Your task to perform on an android device: open app "Expedia: Hotels, Flights & Car" (install if not already installed) and go to login screen Image 0: 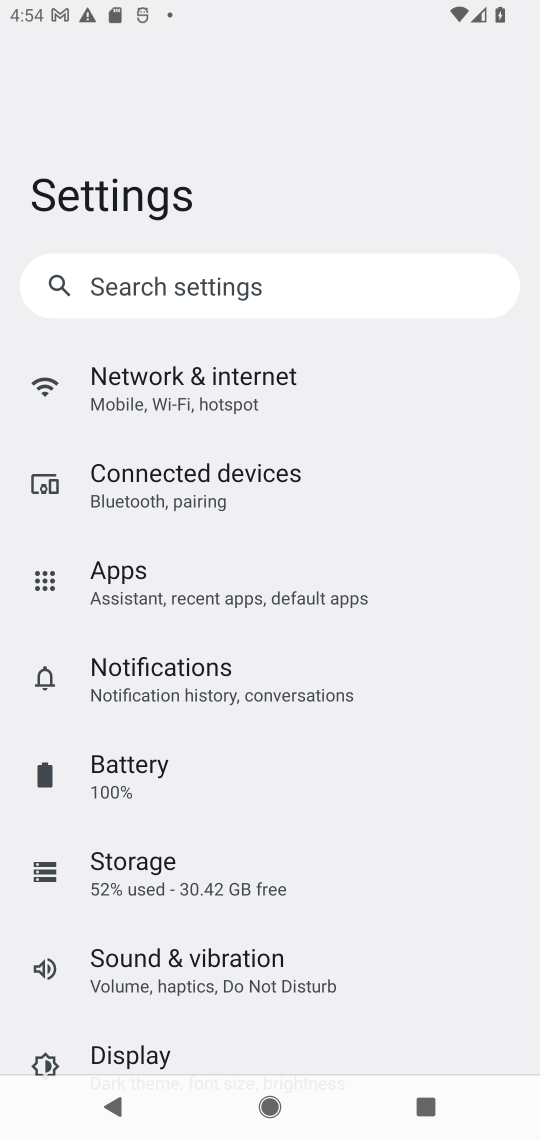
Step 0: press home button
Your task to perform on an android device: open app "Expedia: Hotels, Flights & Car" (install if not already installed) and go to login screen Image 1: 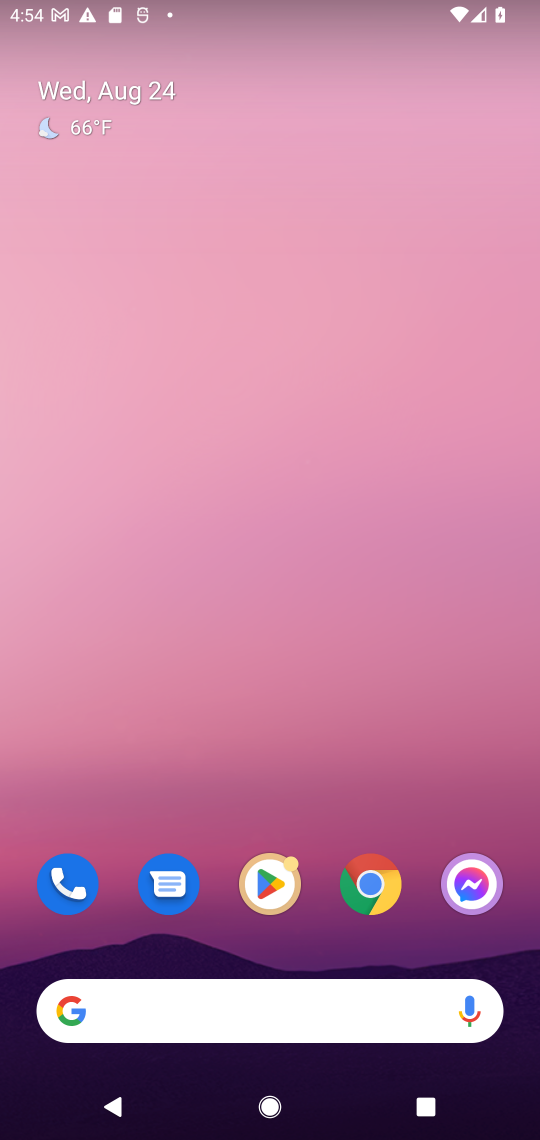
Step 1: click (261, 877)
Your task to perform on an android device: open app "Expedia: Hotels, Flights & Car" (install if not already installed) and go to login screen Image 2: 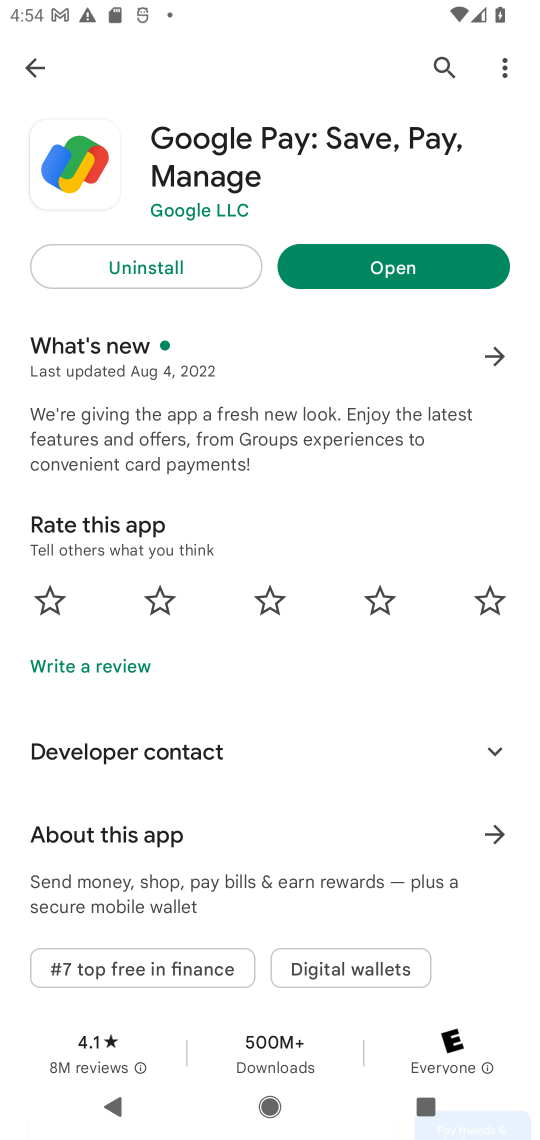
Step 2: click (20, 62)
Your task to perform on an android device: open app "Expedia: Hotels, Flights & Car" (install if not already installed) and go to login screen Image 3: 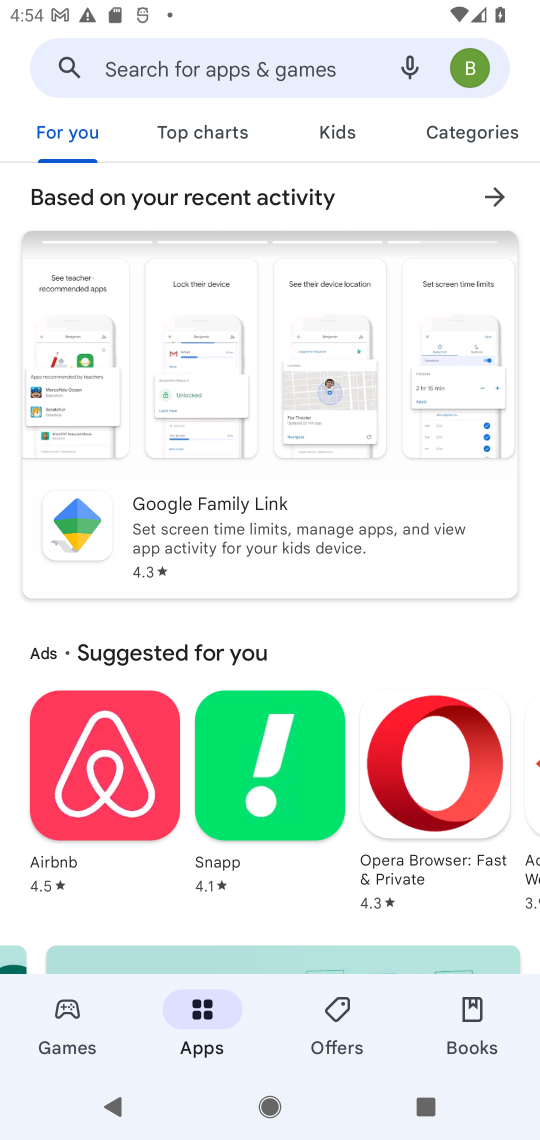
Step 3: click (131, 63)
Your task to perform on an android device: open app "Expedia: Hotels, Flights & Car" (install if not already installed) and go to login screen Image 4: 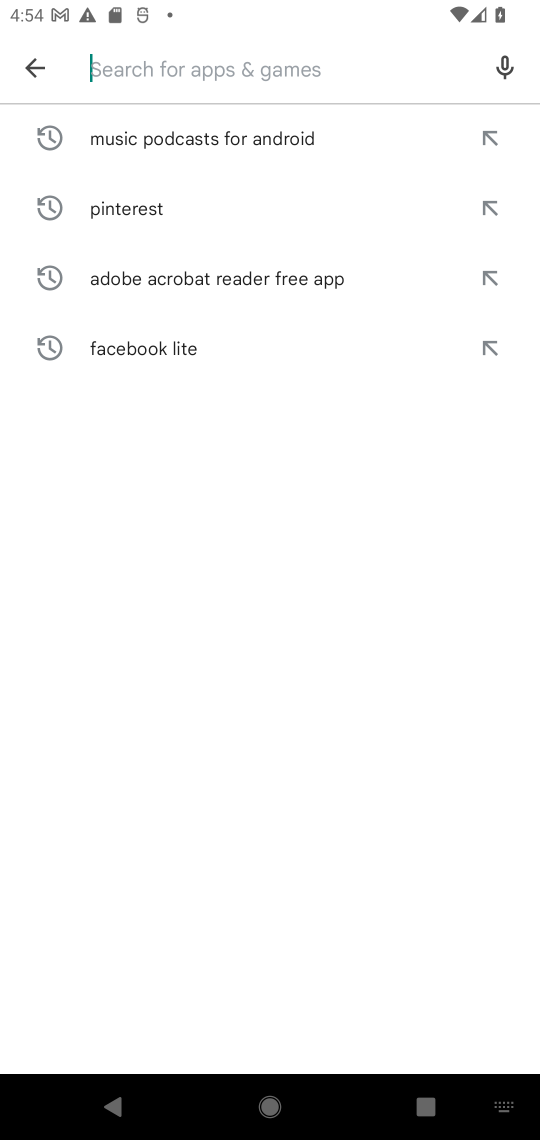
Step 4: type "Expedia: Hotels, Flights & Car"
Your task to perform on an android device: open app "Expedia: Hotels, Flights & Car" (install if not already installed) and go to login screen Image 5: 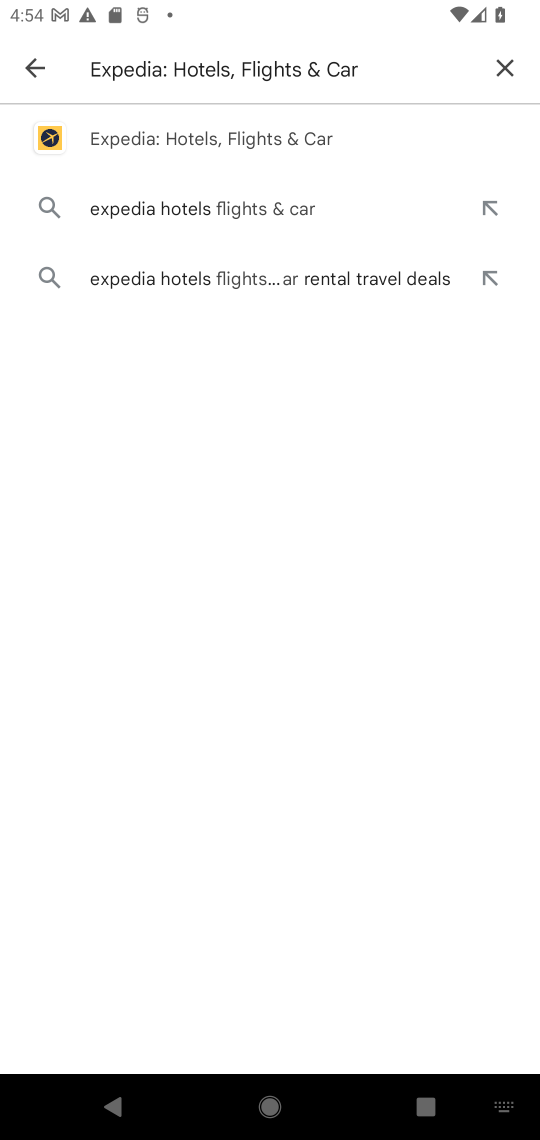
Step 5: click (293, 144)
Your task to perform on an android device: open app "Expedia: Hotels, Flights & Car" (install if not already installed) and go to login screen Image 6: 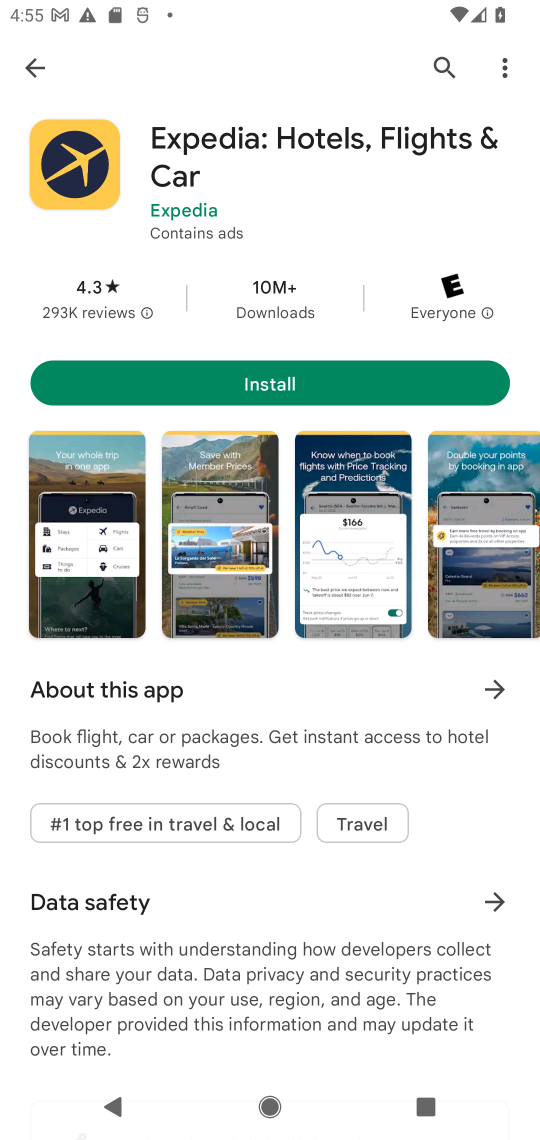
Step 6: click (237, 389)
Your task to perform on an android device: open app "Expedia: Hotels, Flights & Car" (install if not already installed) and go to login screen Image 7: 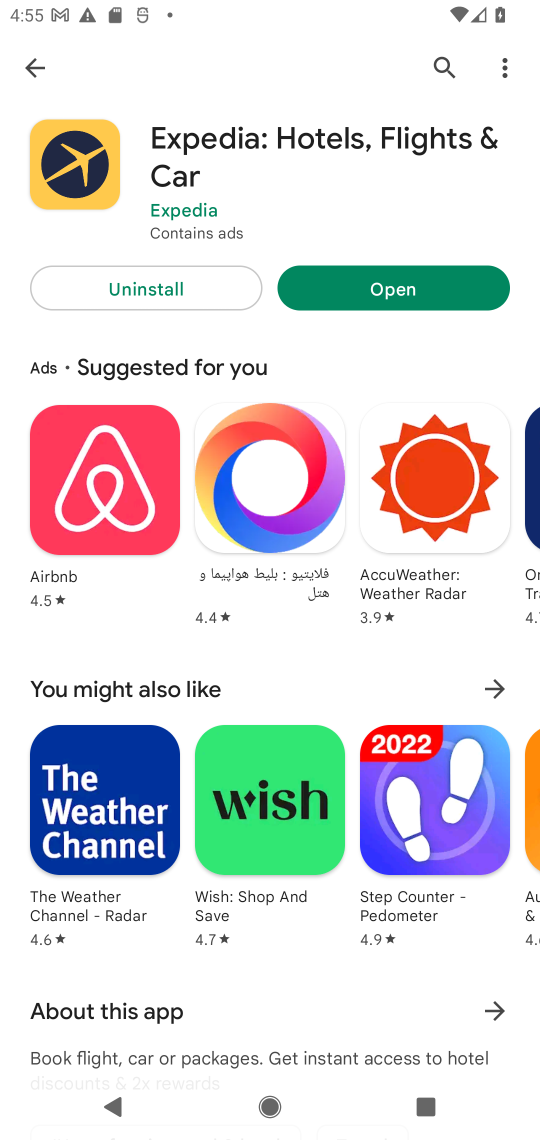
Step 7: click (385, 290)
Your task to perform on an android device: open app "Expedia: Hotels, Flights & Car" (install if not already installed) and go to login screen Image 8: 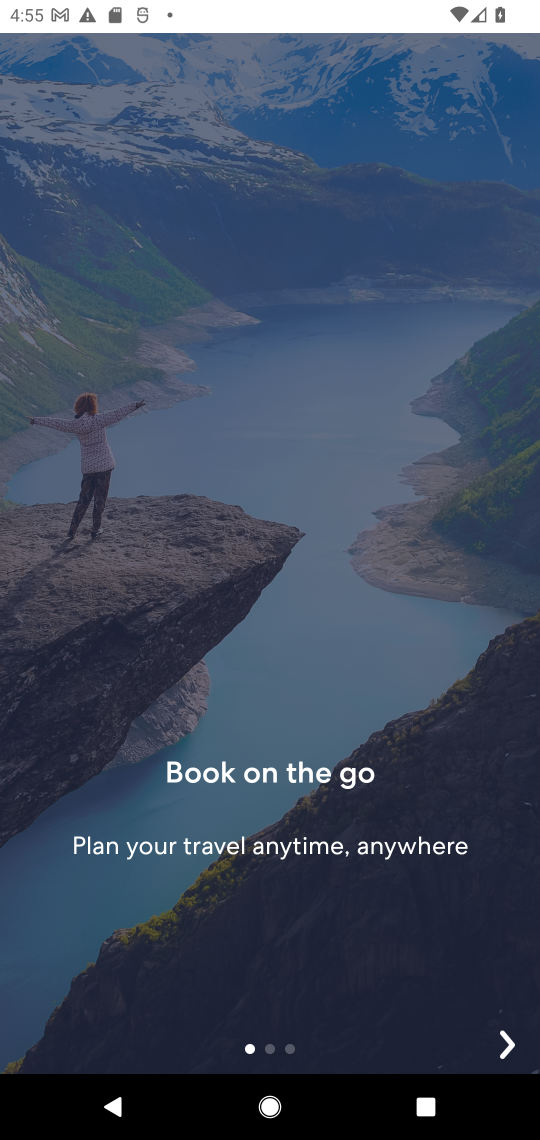
Step 8: task complete